Your task to perform on an android device: Open CNN.com Image 0: 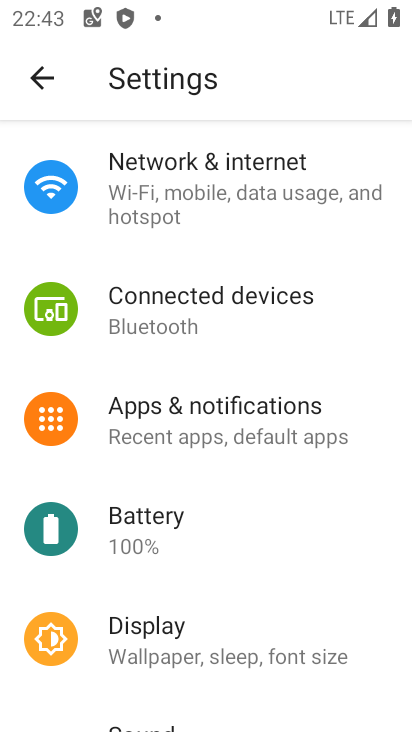
Step 0: press home button
Your task to perform on an android device: Open CNN.com Image 1: 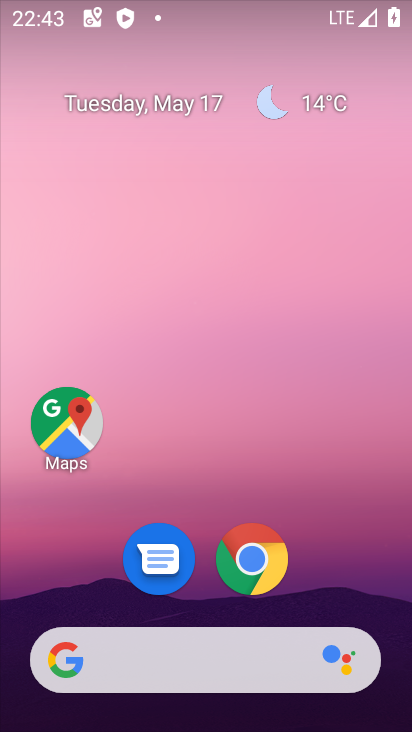
Step 1: click (246, 555)
Your task to perform on an android device: Open CNN.com Image 2: 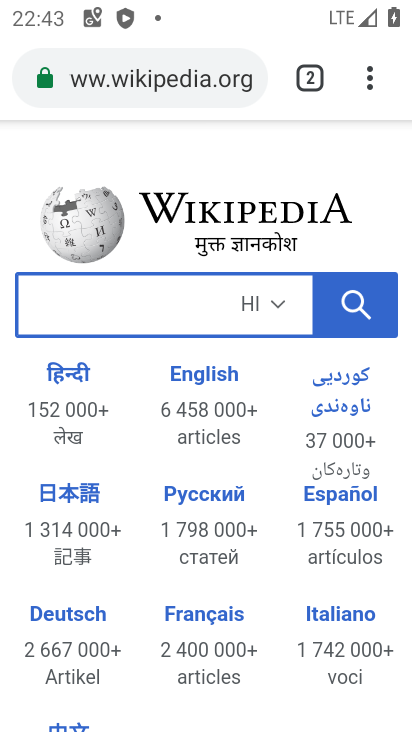
Step 2: click (190, 91)
Your task to perform on an android device: Open CNN.com Image 3: 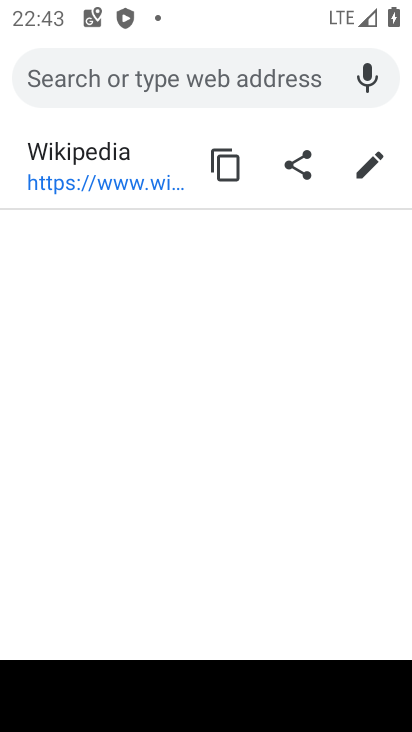
Step 3: type "cnn.com"
Your task to perform on an android device: Open CNN.com Image 4: 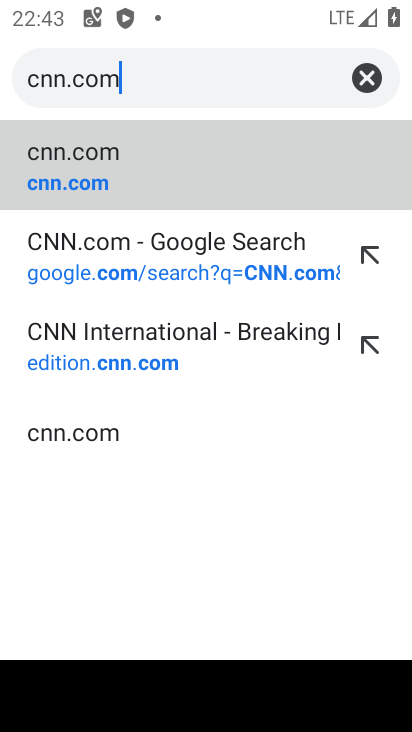
Step 4: click (58, 188)
Your task to perform on an android device: Open CNN.com Image 5: 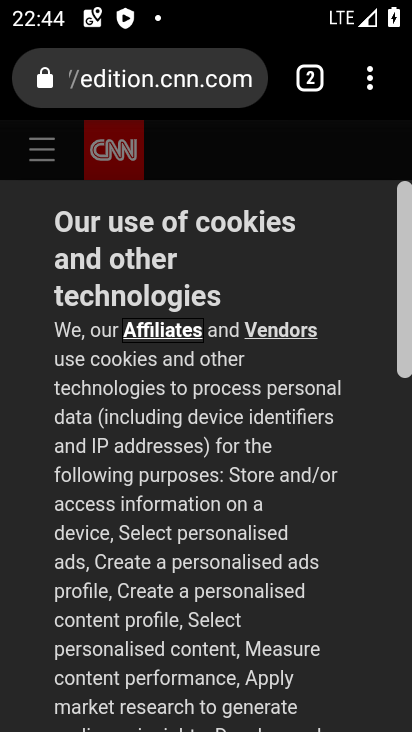
Step 5: task complete